Your task to perform on an android device: Open the calendar and show me this week's events? Image 0: 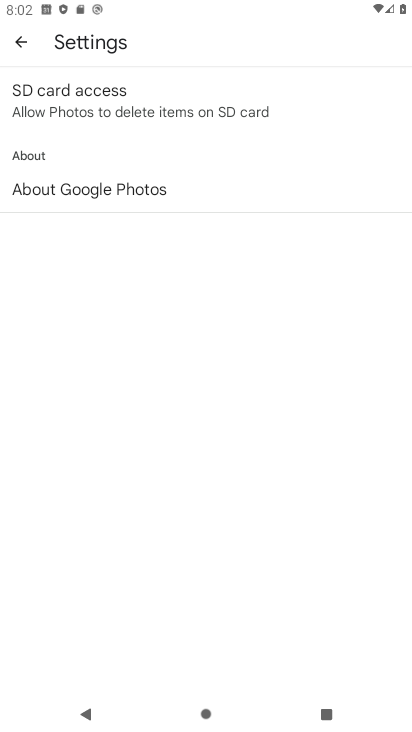
Step 0: press home button
Your task to perform on an android device: Open the calendar and show me this week's events? Image 1: 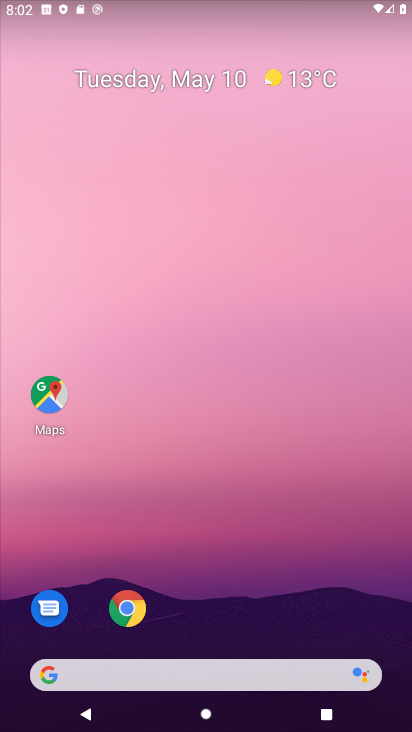
Step 1: drag from (136, 675) to (307, 0)
Your task to perform on an android device: Open the calendar and show me this week's events? Image 2: 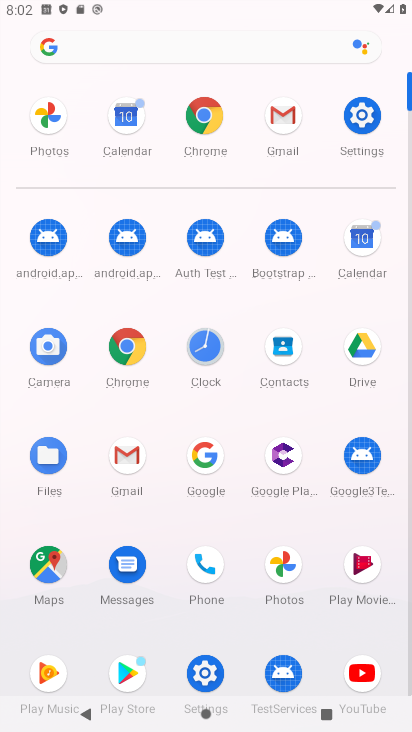
Step 2: click (363, 257)
Your task to perform on an android device: Open the calendar and show me this week's events? Image 3: 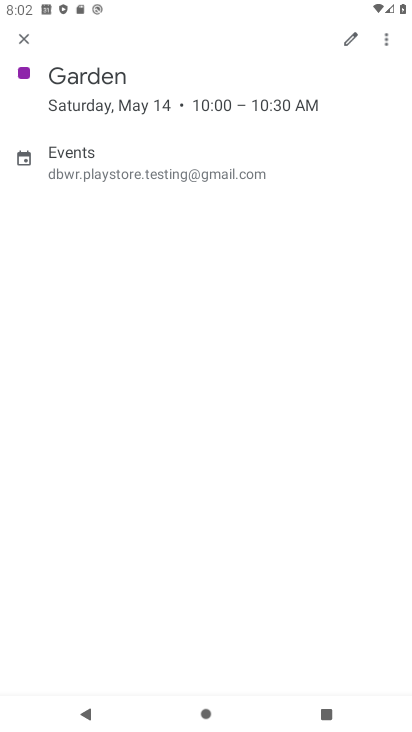
Step 3: click (17, 39)
Your task to perform on an android device: Open the calendar and show me this week's events? Image 4: 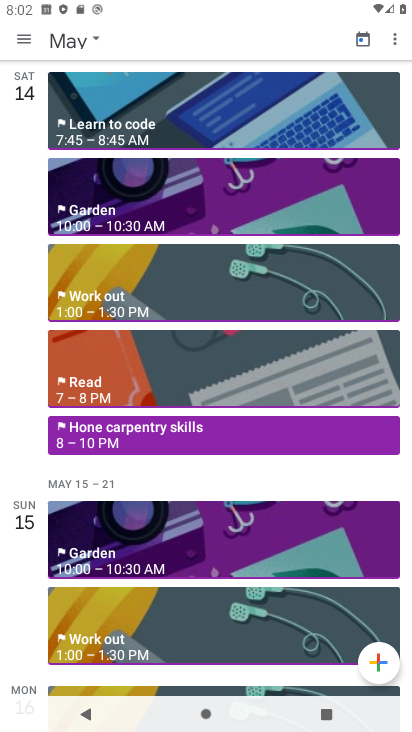
Step 4: click (69, 41)
Your task to perform on an android device: Open the calendar and show me this week's events? Image 5: 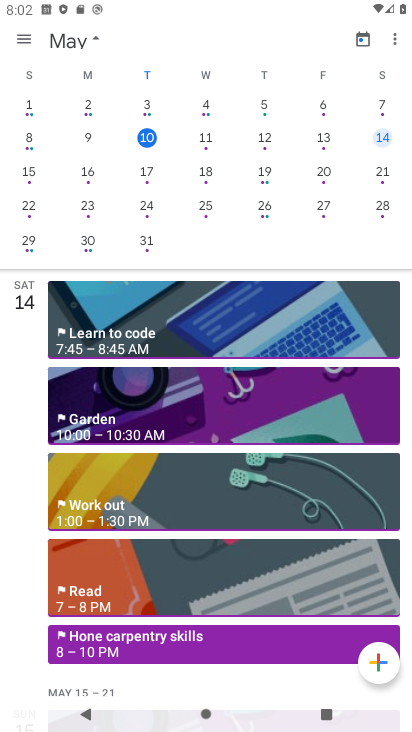
Step 5: click (144, 138)
Your task to perform on an android device: Open the calendar and show me this week's events? Image 6: 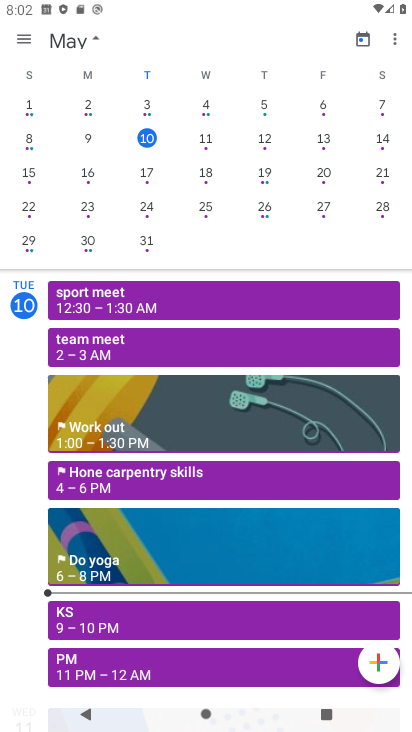
Step 6: click (27, 38)
Your task to perform on an android device: Open the calendar and show me this week's events? Image 7: 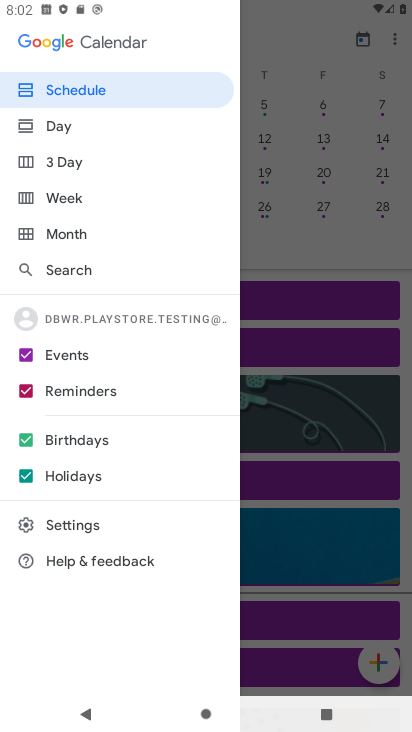
Step 7: click (78, 202)
Your task to perform on an android device: Open the calendar and show me this week's events? Image 8: 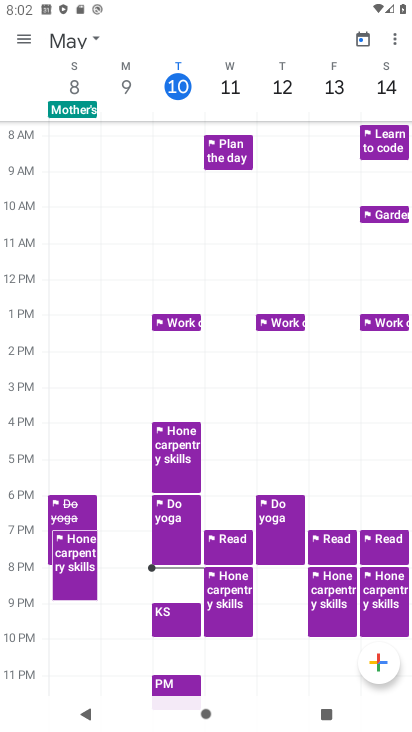
Step 8: click (25, 39)
Your task to perform on an android device: Open the calendar and show me this week's events? Image 9: 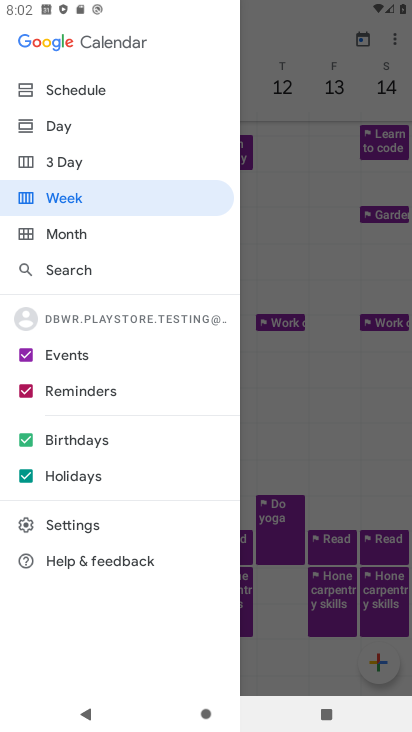
Step 9: click (61, 88)
Your task to perform on an android device: Open the calendar and show me this week's events? Image 10: 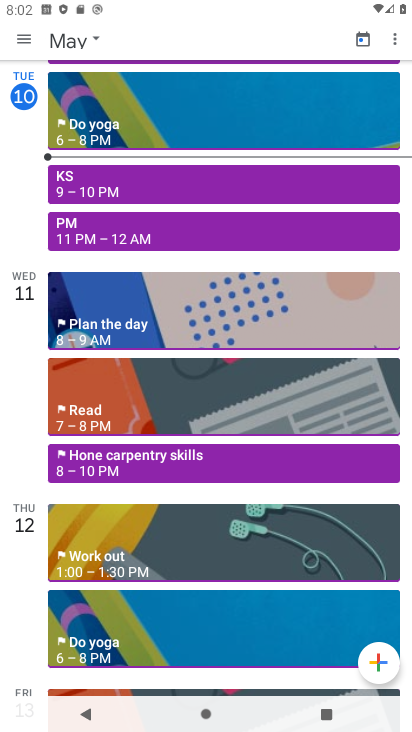
Step 10: click (158, 243)
Your task to perform on an android device: Open the calendar and show me this week's events? Image 11: 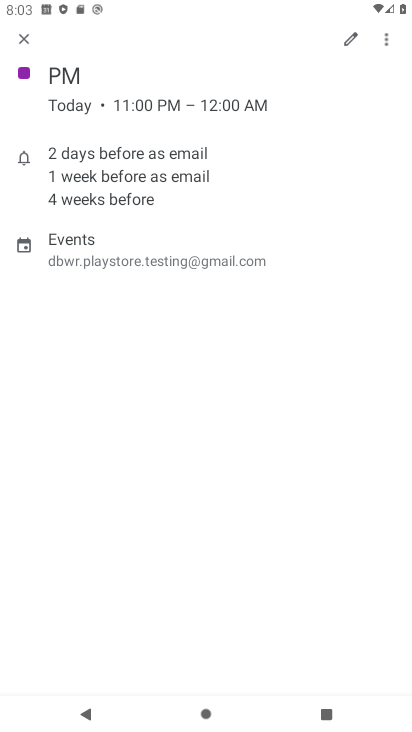
Step 11: task complete